Your task to perform on an android device: open app "Facebook" (install if not already installed), go to login, and select forgot password Image 0: 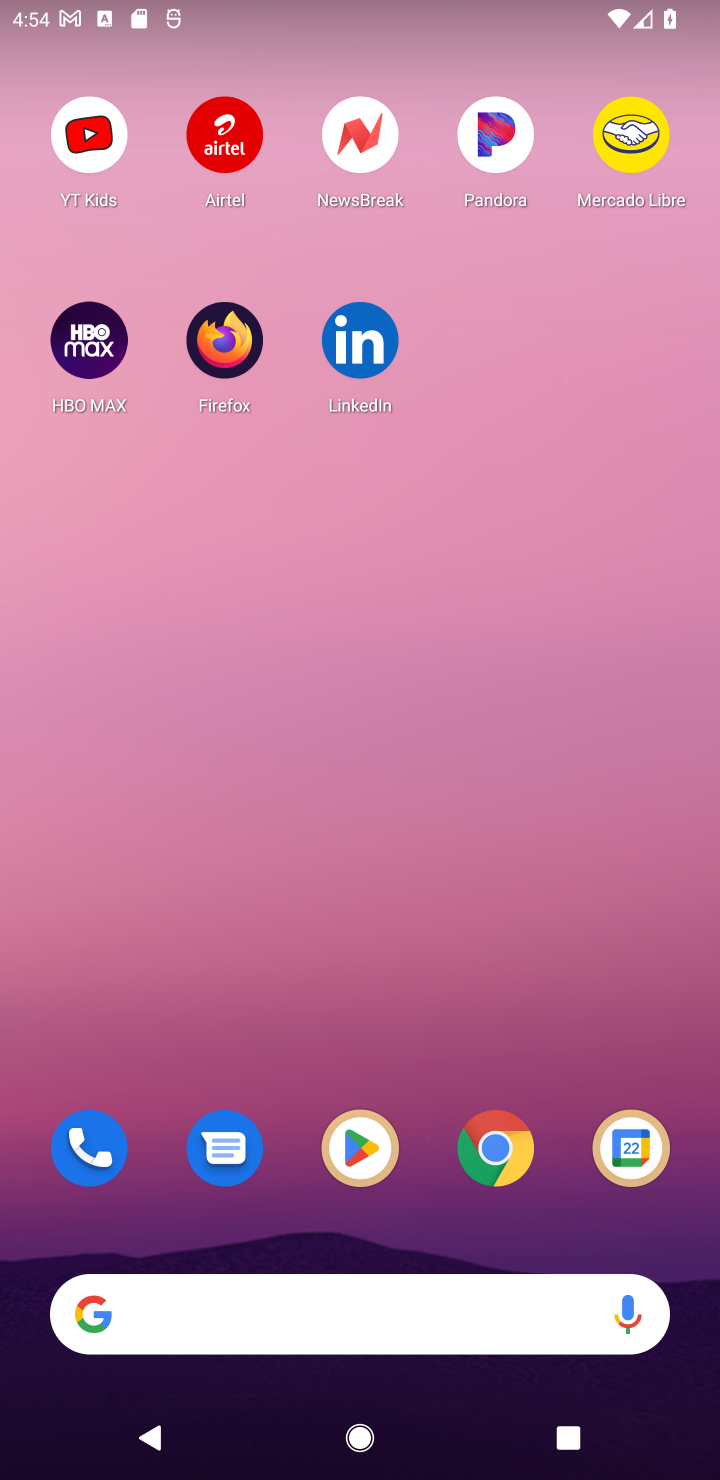
Step 0: click (359, 1148)
Your task to perform on an android device: open app "Facebook" (install if not already installed), go to login, and select forgot password Image 1: 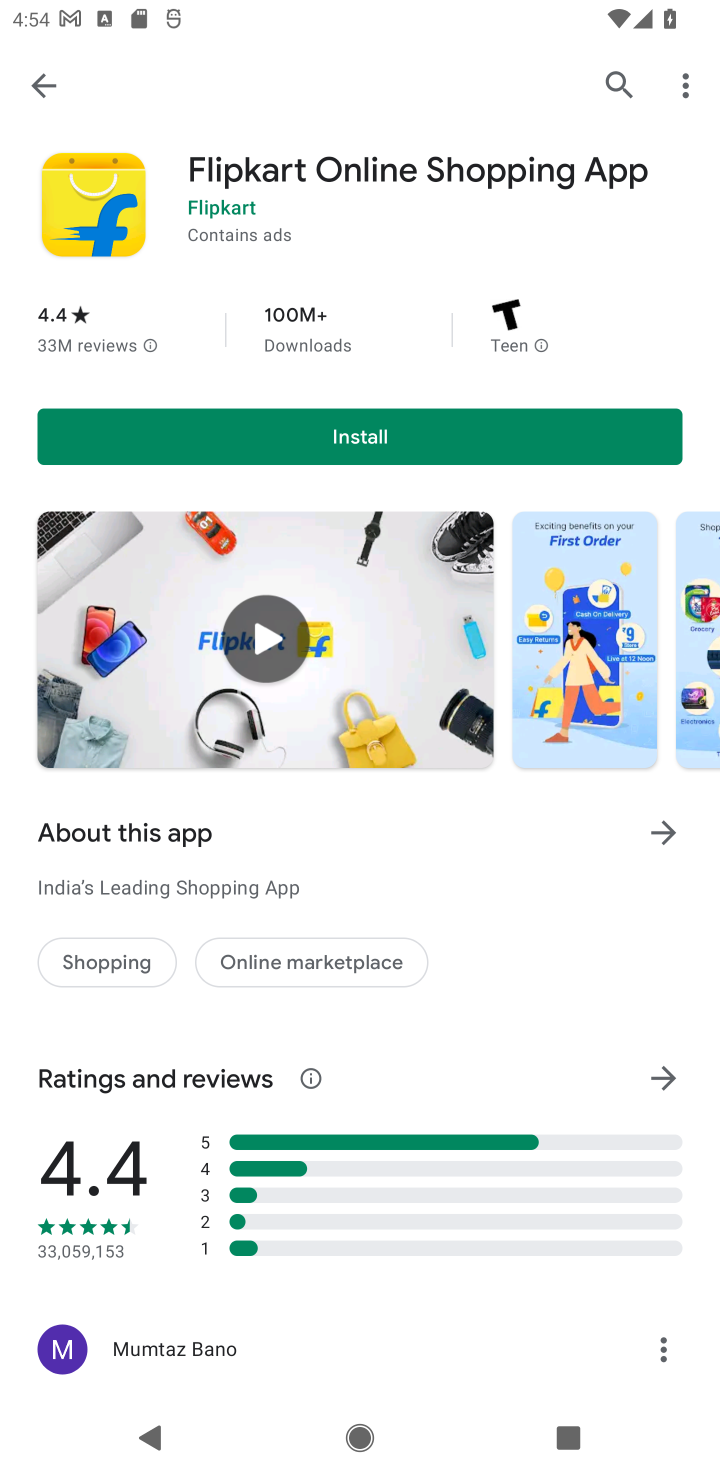
Step 1: click (613, 76)
Your task to perform on an android device: open app "Facebook" (install if not already installed), go to login, and select forgot password Image 2: 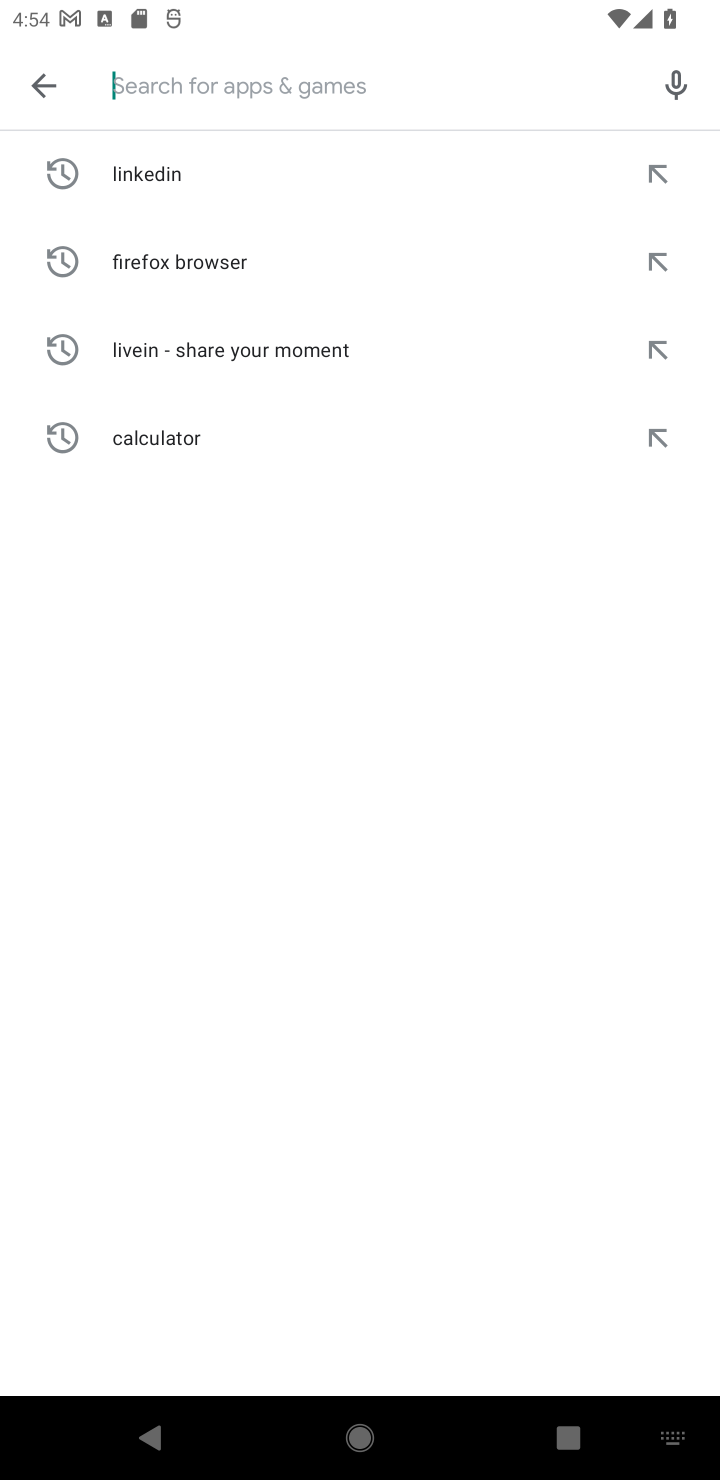
Step 2: type "Facebook"
Your task to perform on an android device: open app "Facebook" (install if not already installed), go to login, and select forgot password Image 3: 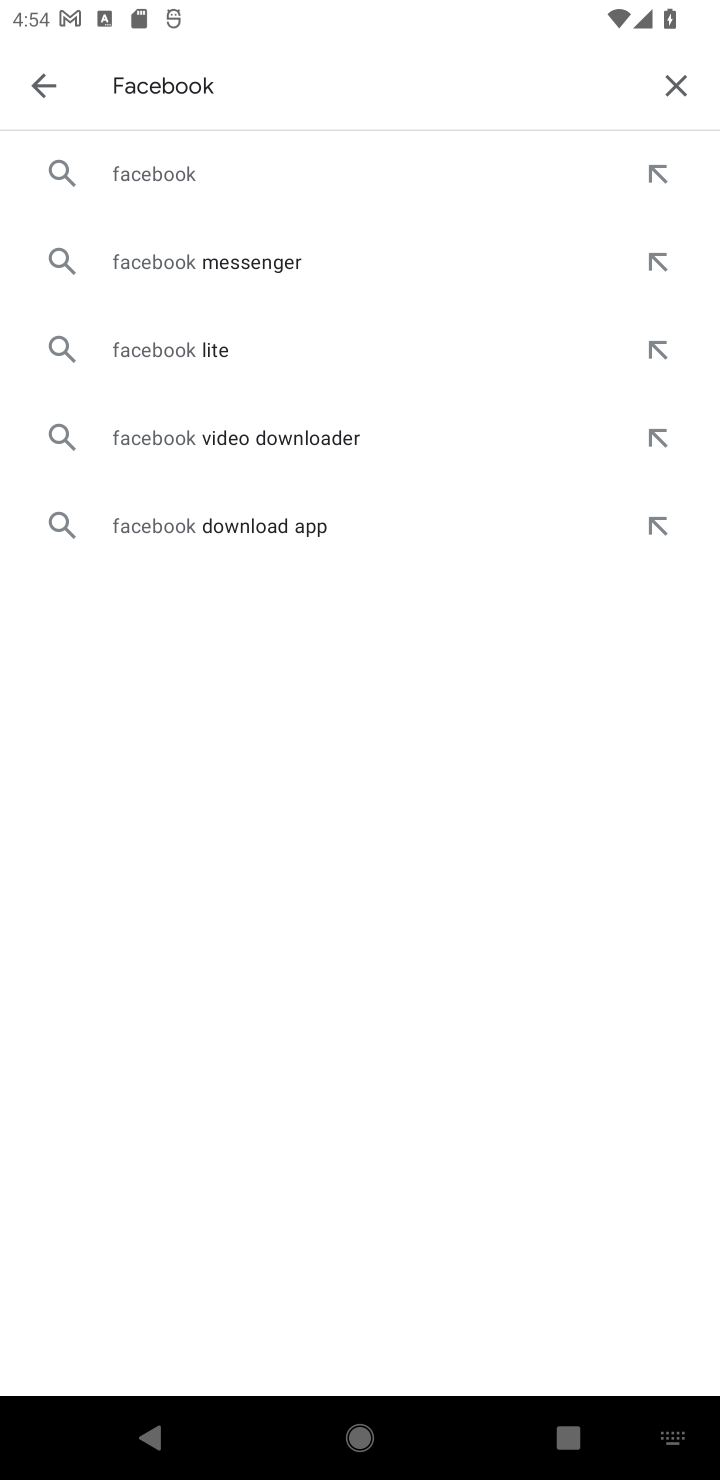
Step 3: click (141, 171)
Your task to perform on an android device: open app "Facebook" (install if not already installed), go to login, and select forgot password Image 4: 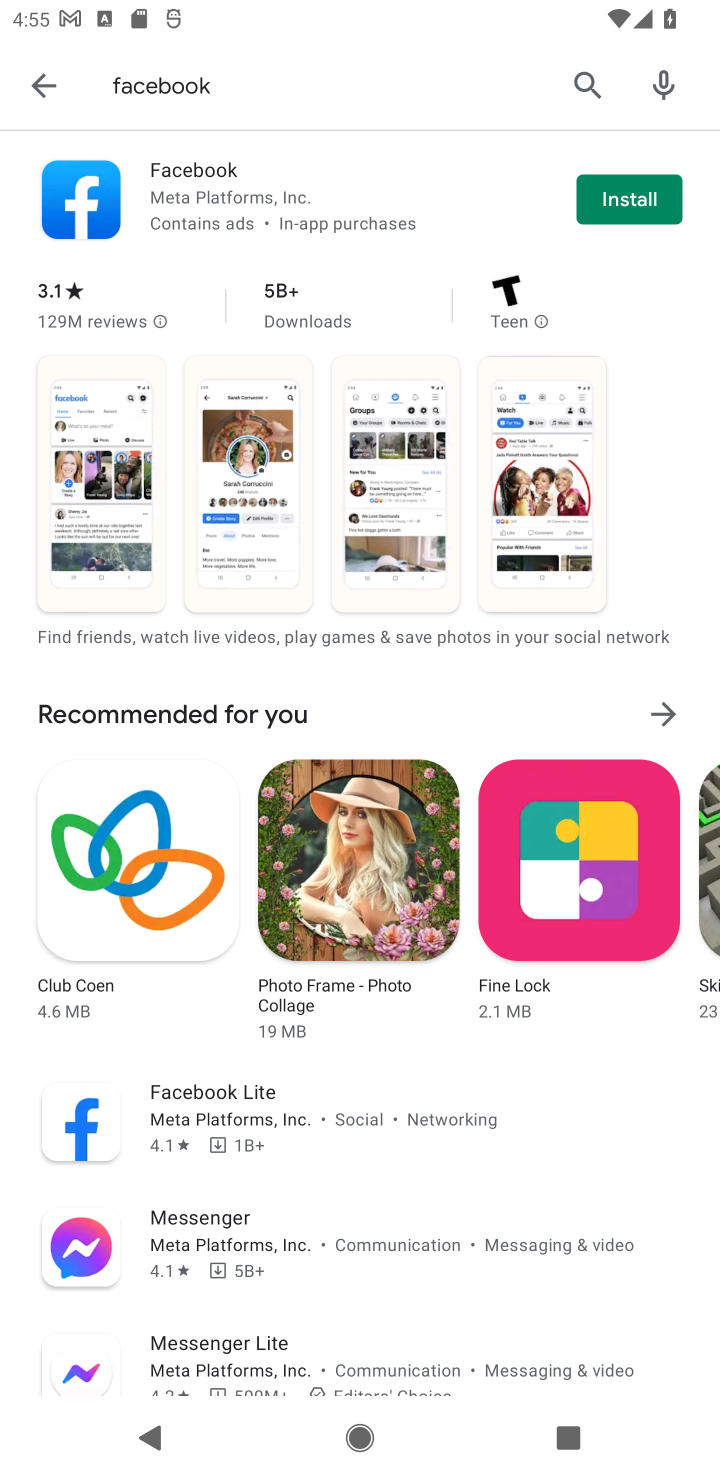
Step 4: click (636, 203)
Your task to perform on an android device: open app "Facebook" (install if not already installed), go to login, and select forgot password Image 5: 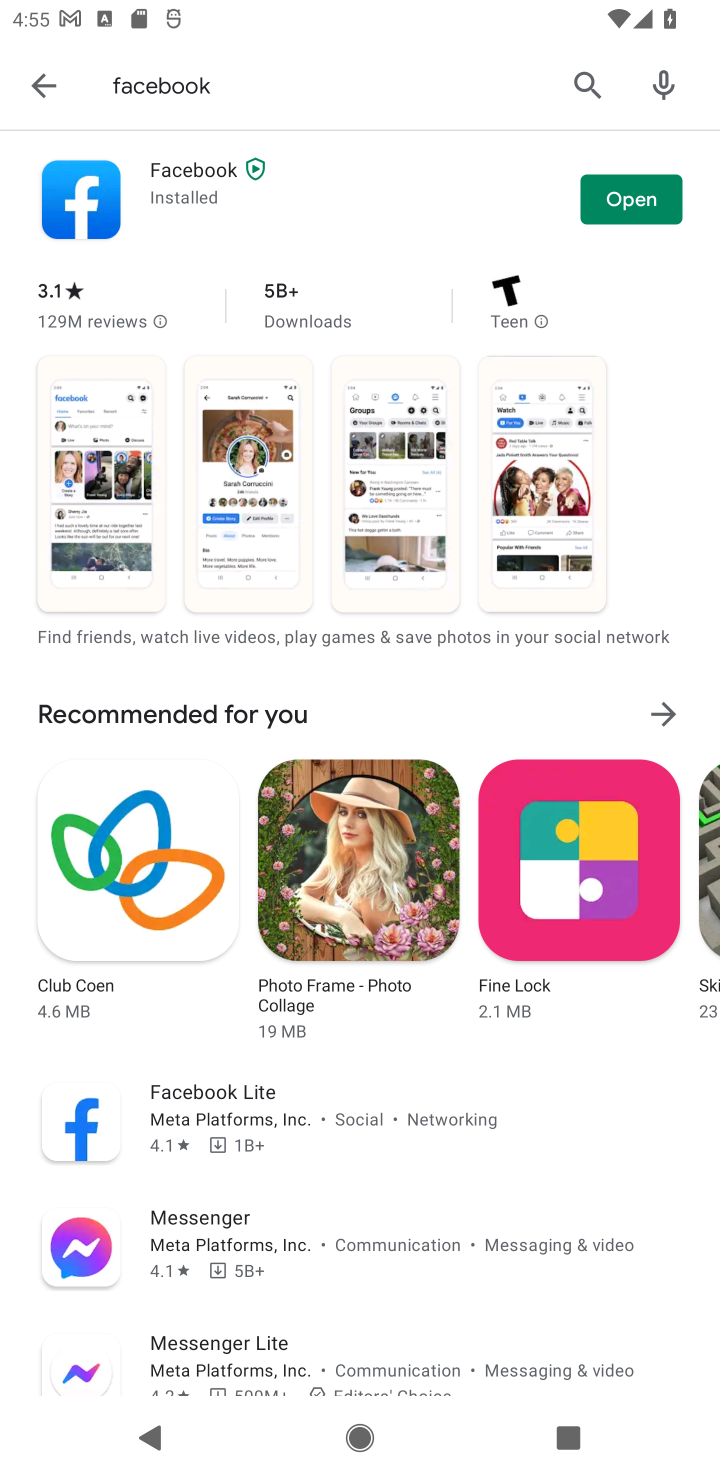
Step 5: click (636, 203)
Your task to perform on an android device: open app "Facebook" (install if not already installed), go to login, and select forgot password Image 6: 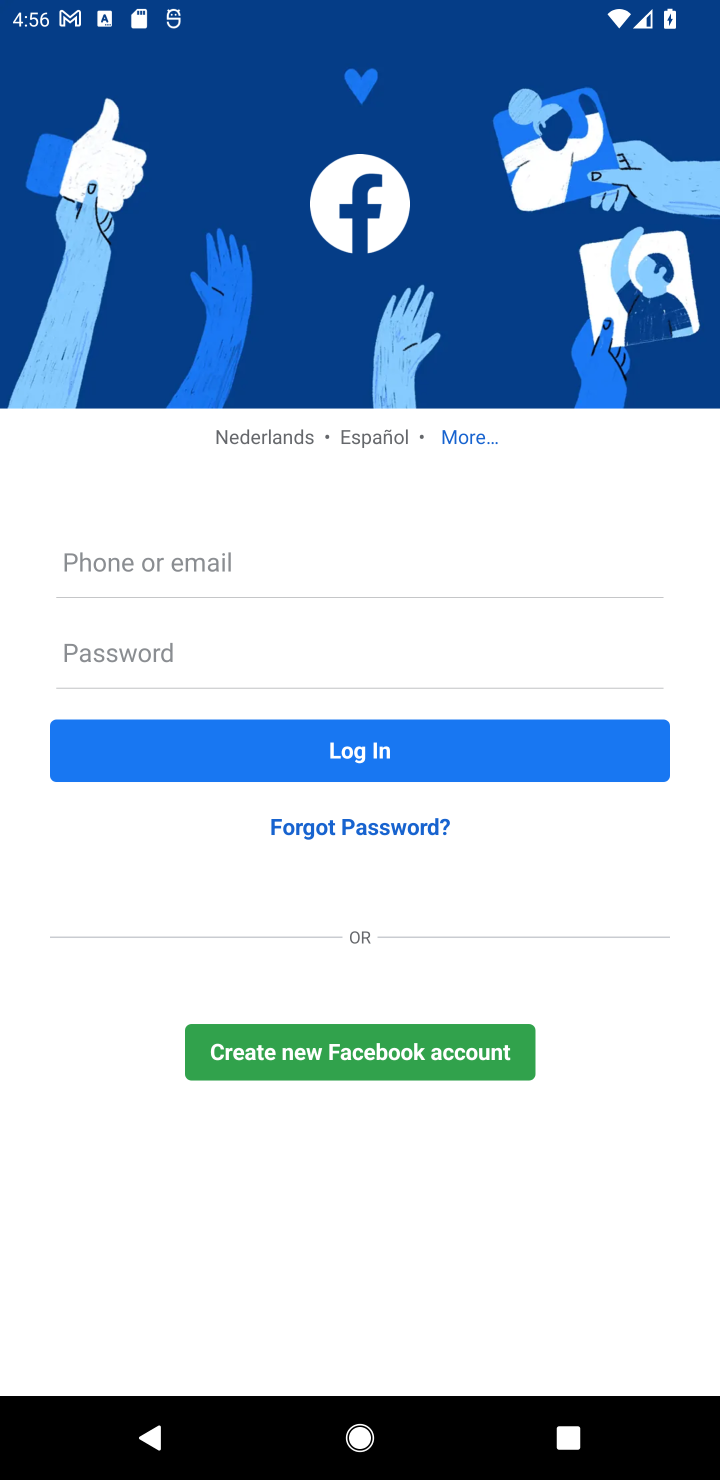
Step 6: click (374, 820)
Your task to perform on an android device: open app "Facebook" (install if not already installed), go to login, and select forgot password Image 7: 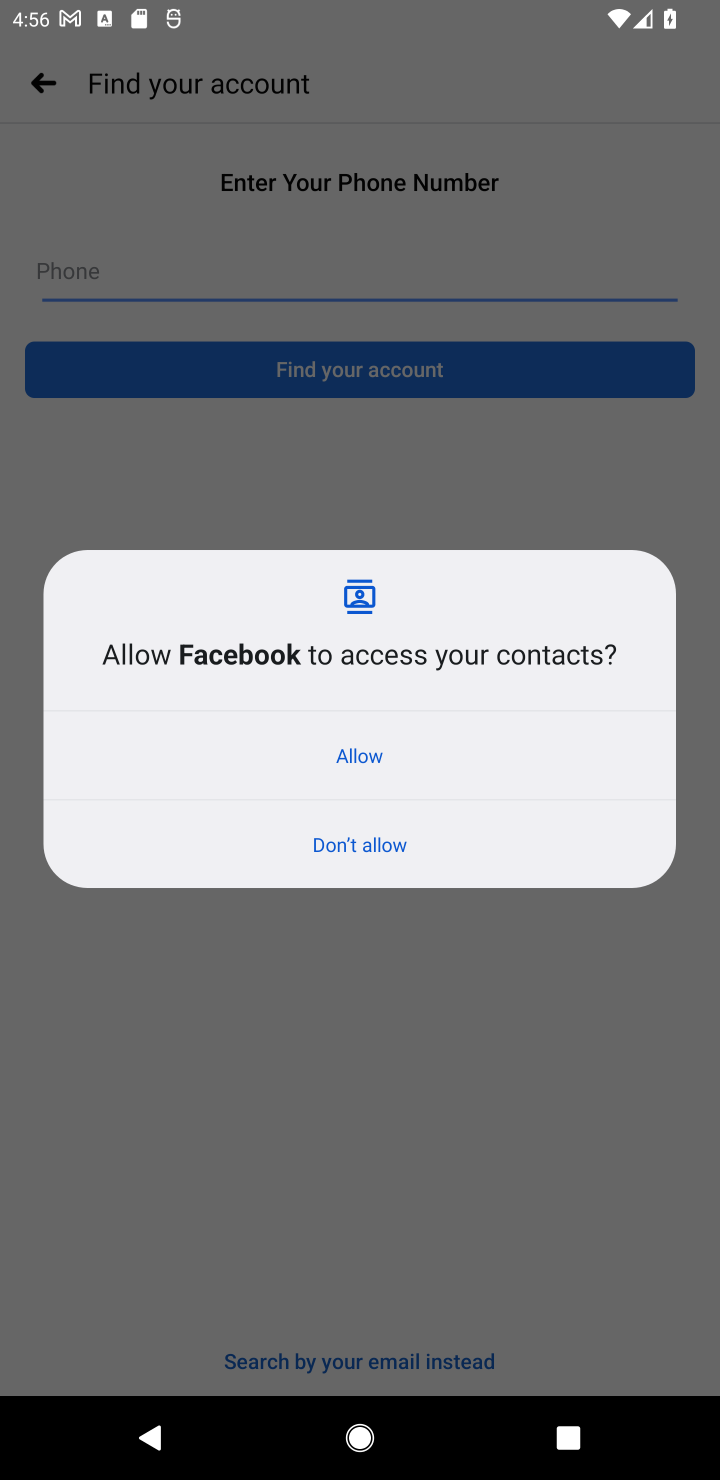
Step 7: click (347, 753)
Your task to perform on an android device: open app "Facebook" (install if not already installed), go to login, and select forgot password Image 8: 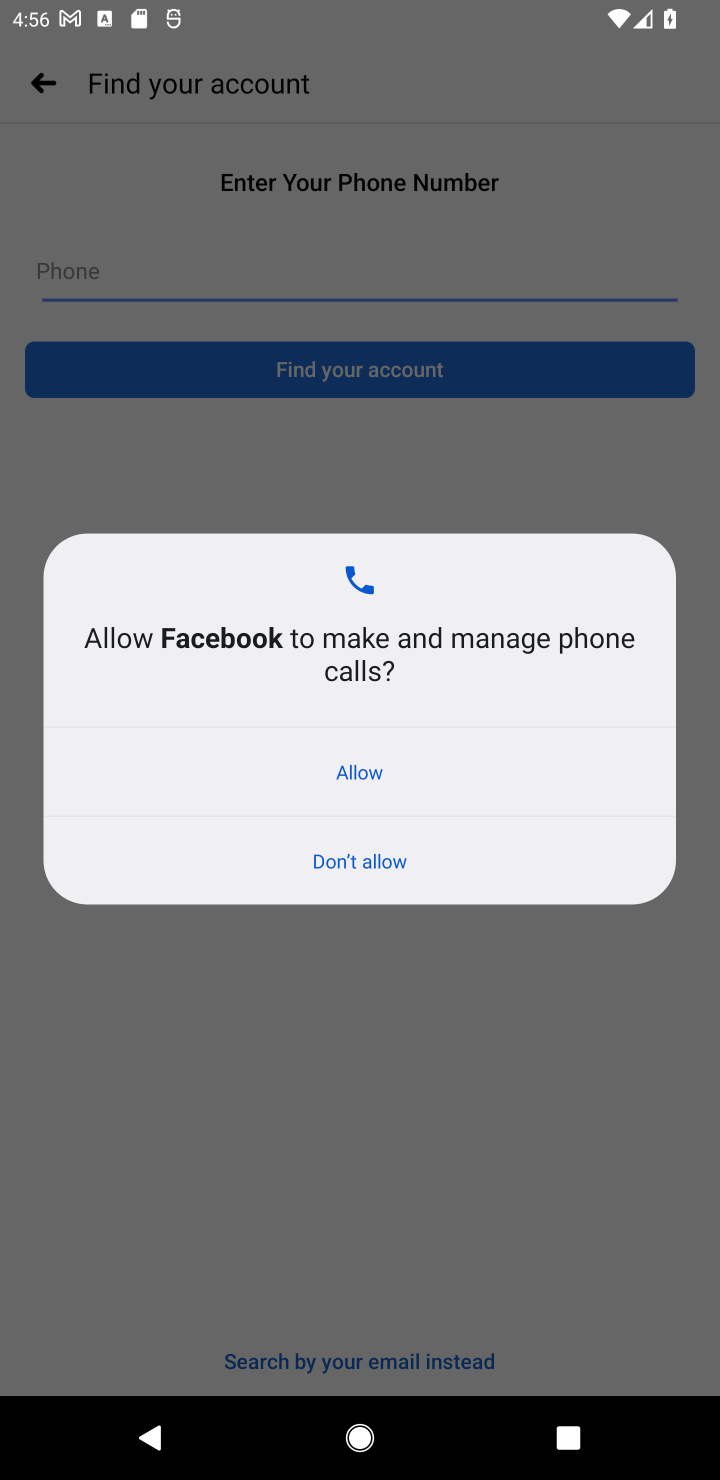
Step 8: click (354, 774)
Your task to perform on an android device: open app "Facebook" (install if not already installed), go to login, and select forgot password Image 9: 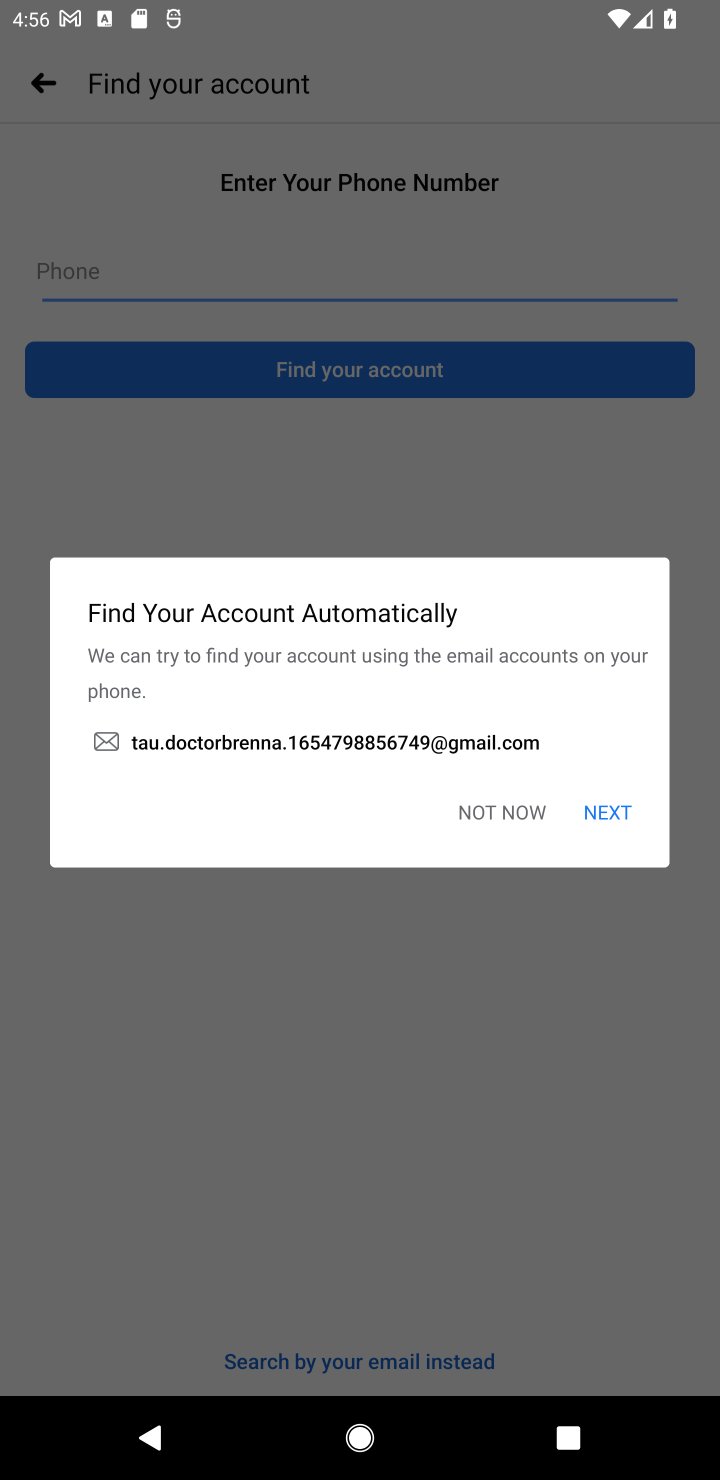
Step 9: task complete